Your task to perform on an android device: turn smart compose on in the gmail app Image 0: 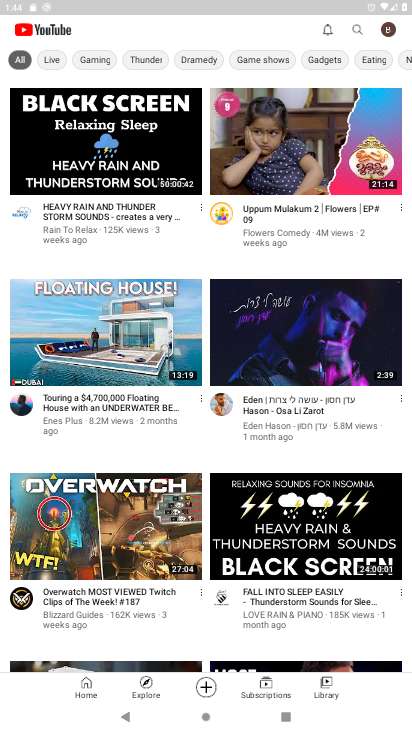
Step 0: press home button
Your task to perform on an android device: turn smart compose on in the gmail app Image 1: 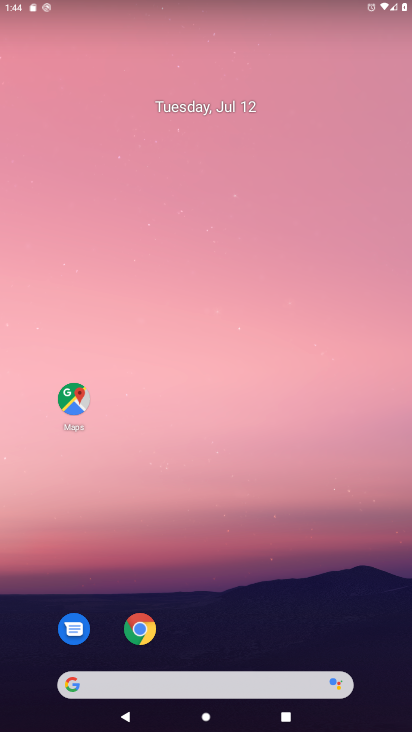
Step 1: drag from (248, 642) to (338, 104)
Your task to perform on an android device: turn smart compose on in the gmail app Image 2: 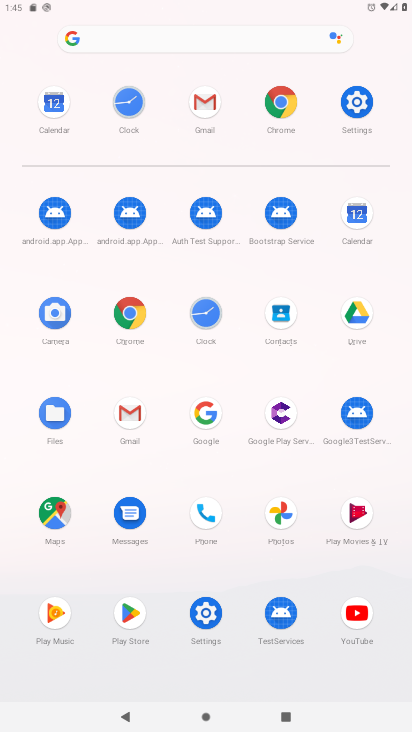
Step 2: click (116, 410)
Your task to perform on an android device: turn smart compose on in the gmail app Image 3: 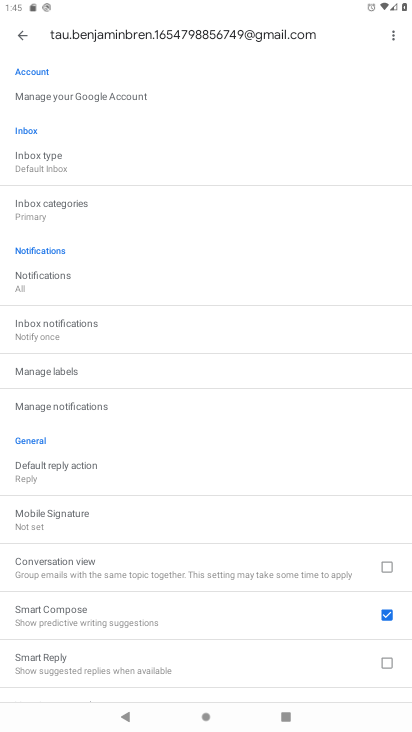
Step 3: task complete